Your task to perform on an android device: Open battery settings Image 0: 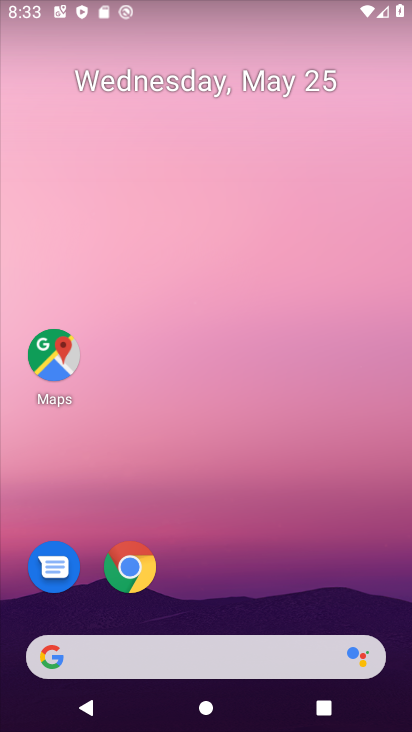
Step 0: drag from (257, 595) to (254, 107)
Your task to perform on an android device: Open battery settings Image 1: 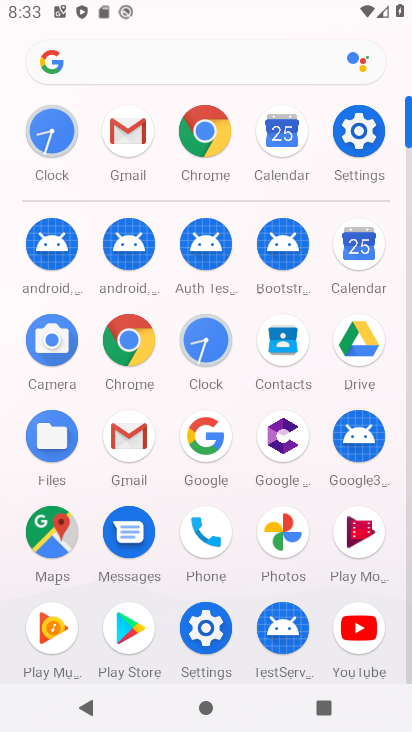
Step 1: click (348, 158)
Your task to perform on an android device: Open battery settings Image 2: 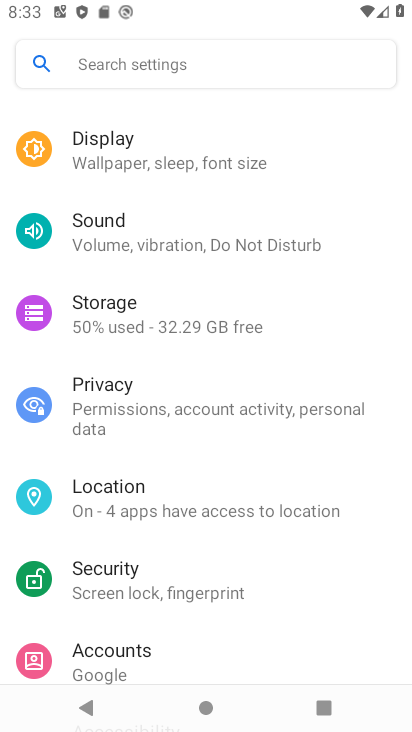
Step 2: drag from (216, 230) to (176, 508)
Your task to perform on an android device: Open battery settings Image 3: 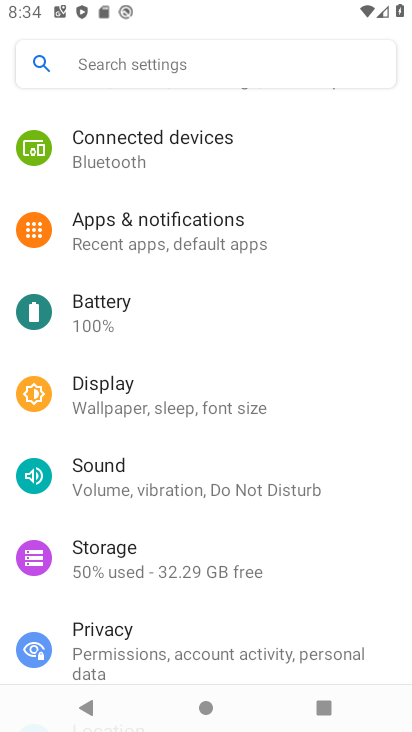
Step 3: click (107, 329)
Your task to perform on an android device: Open battery settings Image 4: 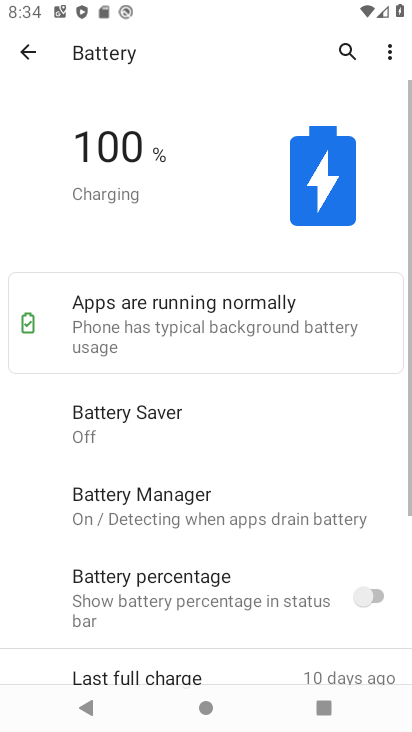
Step 4: task complete